Your task to perform on an android device: install app "Google Sheets" Image 0: 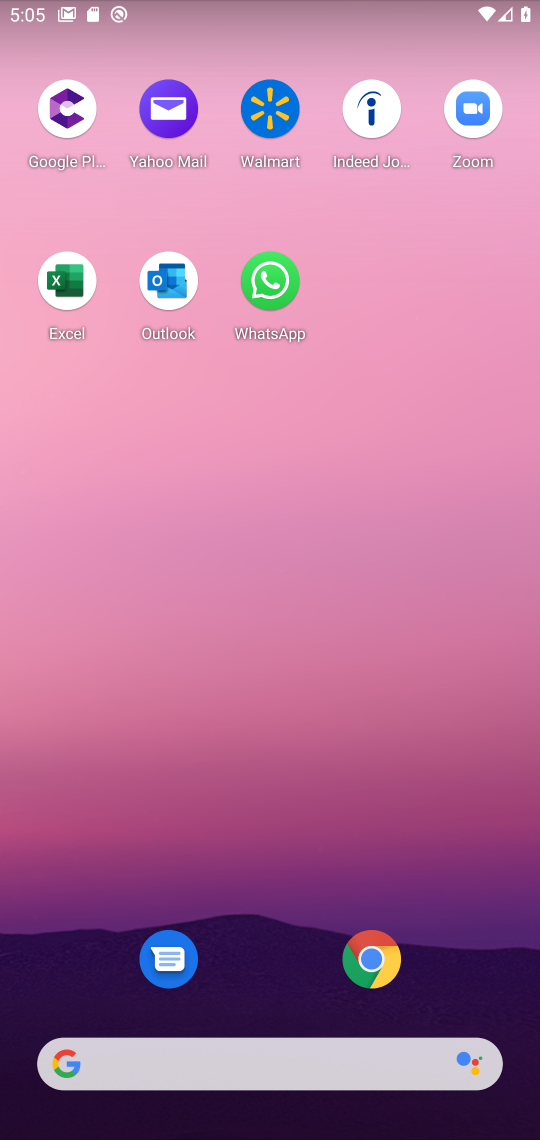
Step 0: drag from (274, 993) to (218, 330)
Your task to perform on an android device: install app "Google Sheets" Image 1: 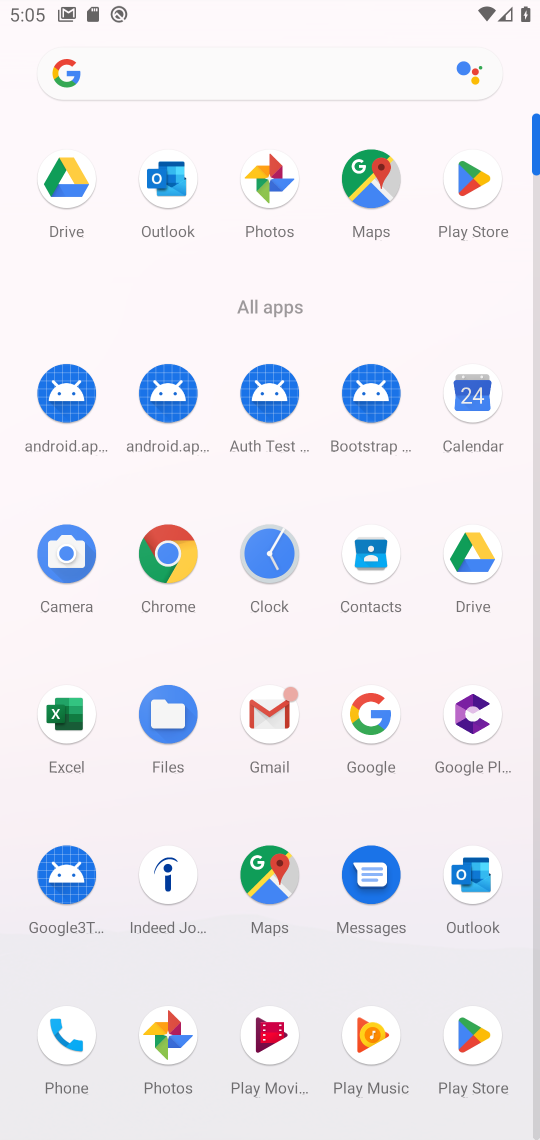
Step 1: click (462, 192)
Your task to perform on an android device: install app "Google Sheets" Image 2: 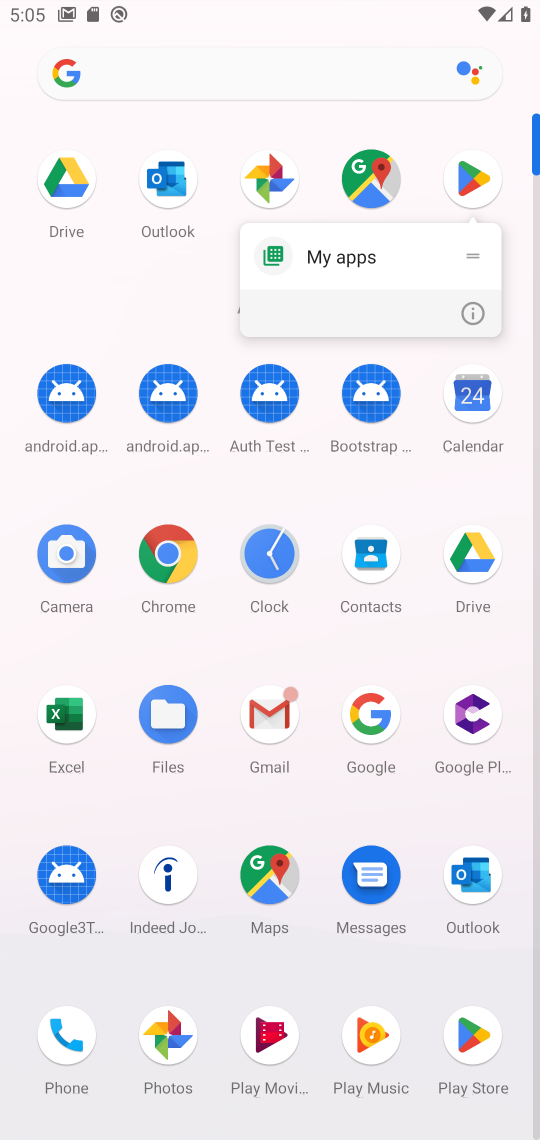
Step 2: click (457, 177)
Your task to perform on an android device: install app "Google Sheets" Image 3: 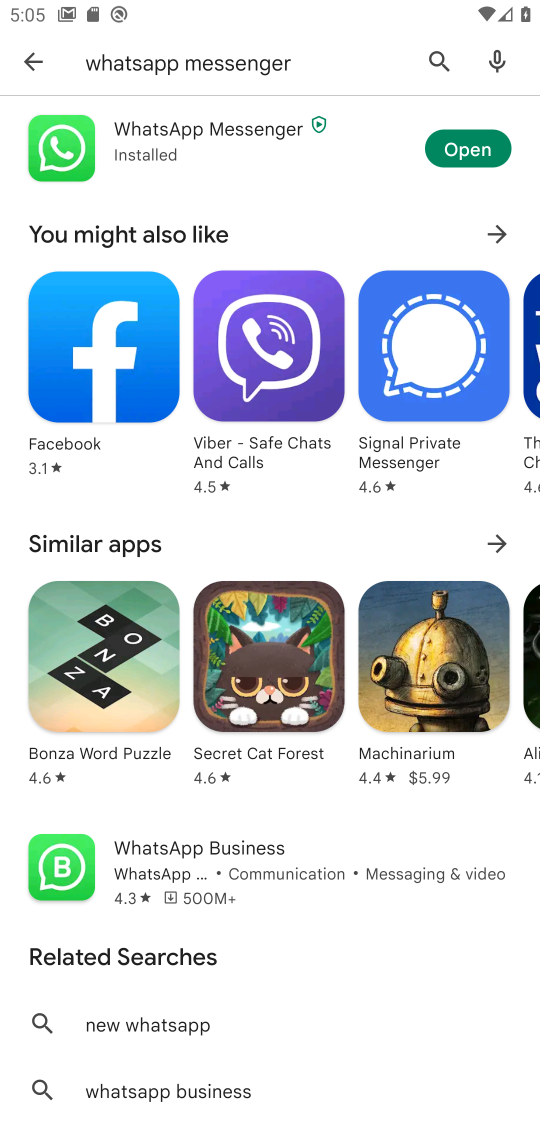
Step 3: click (424, 59)
Your task to perform on an android device: install app "Google Sheets" Image 4: 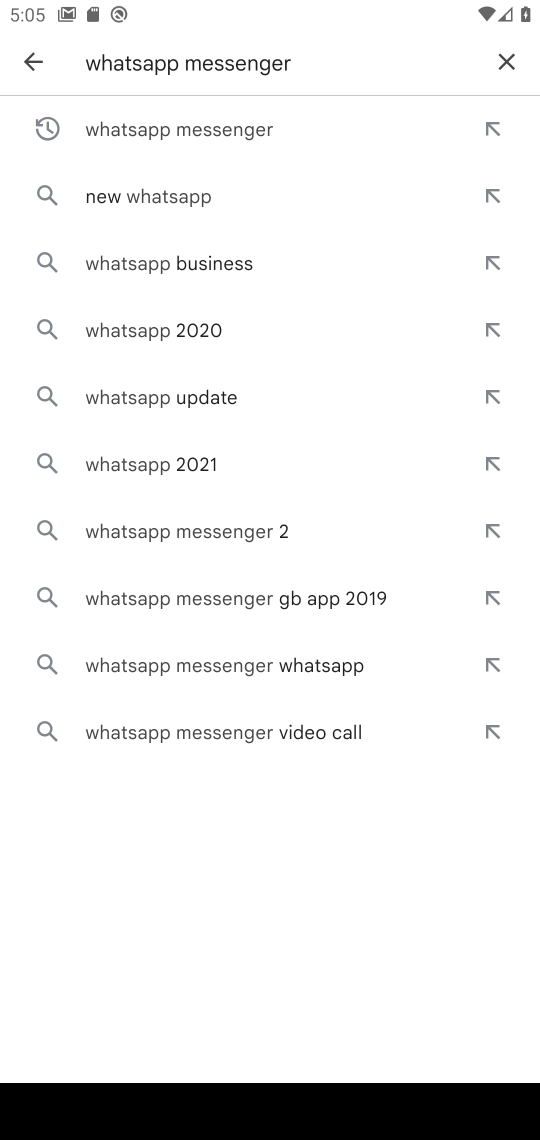
Step 4: click (503, 64)
Your task to perform on an android device: install app "Google Sheets" Image 5: 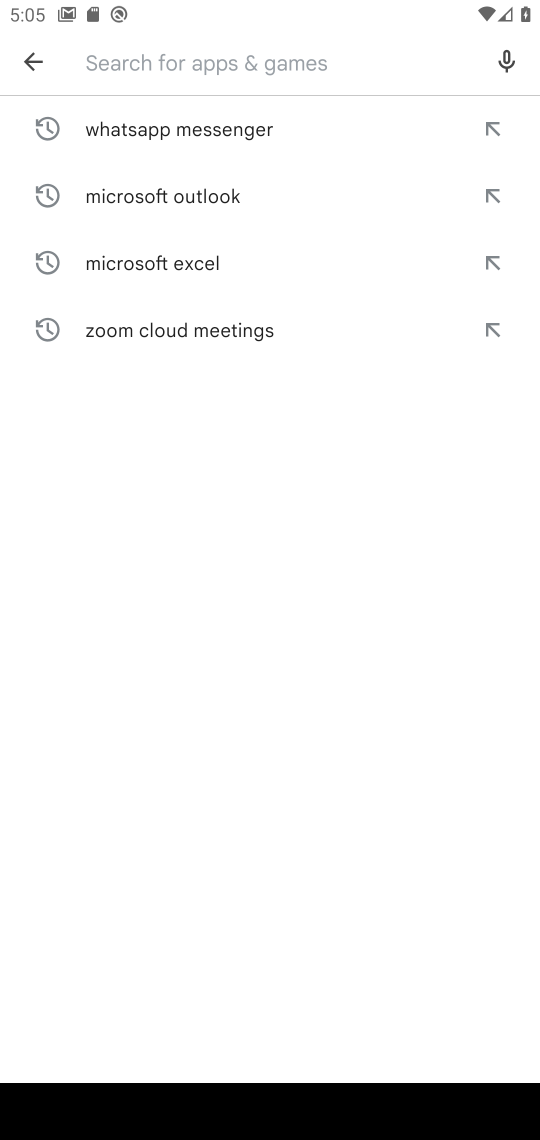
Step 5: type "Google Sheets"
Your task to perform on an android device: install app "Google Sheets" Image 6: 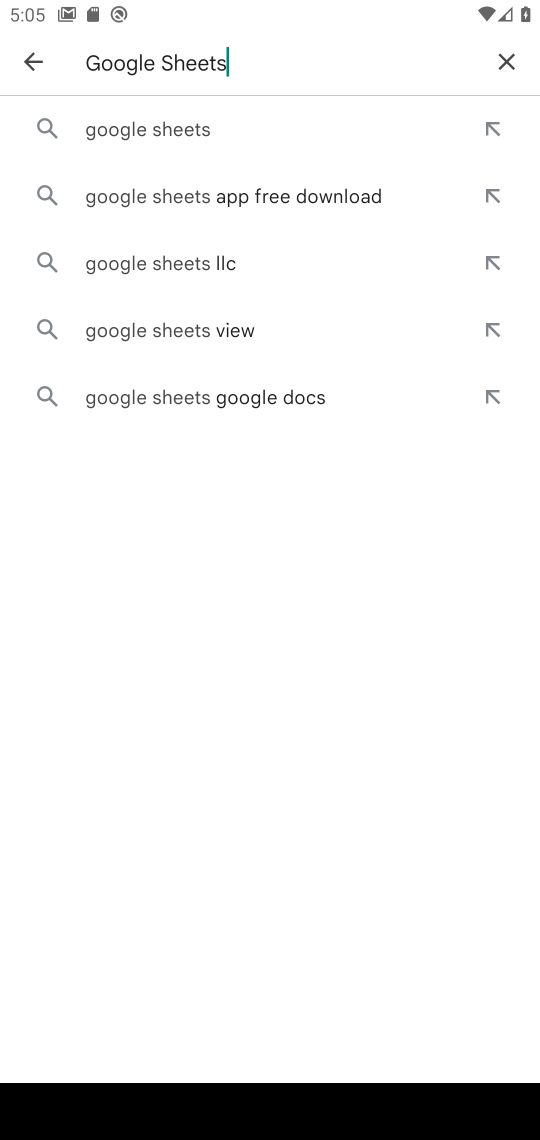
Step 6: click (187, 130)
Your task to perform on an android device: install app "Google Sheets" Image 7: 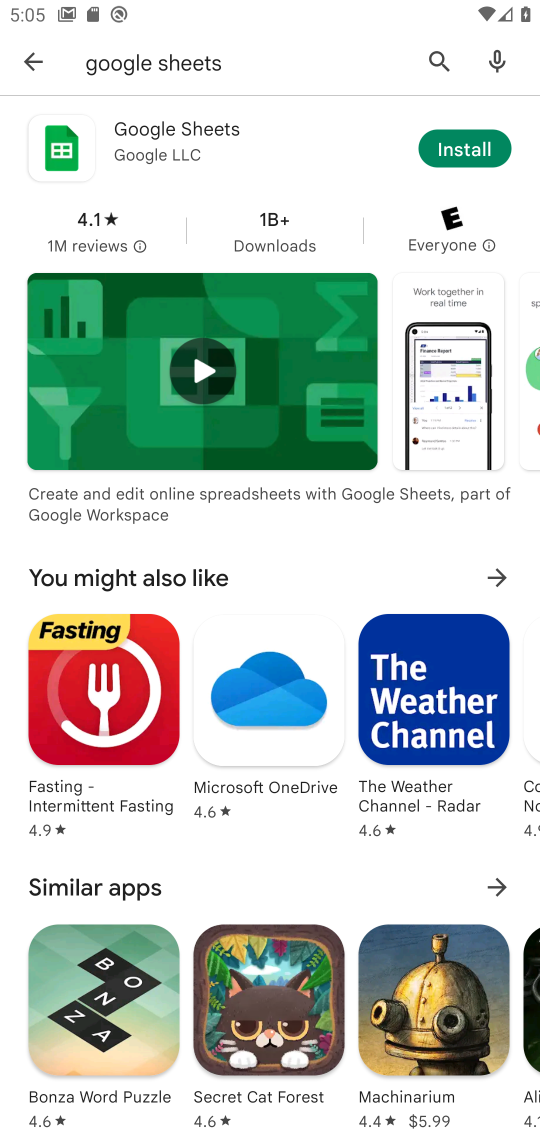
Step 7: click (473, 147)
Your task to perform on an android device: install app "Google Sheets" Image 8: 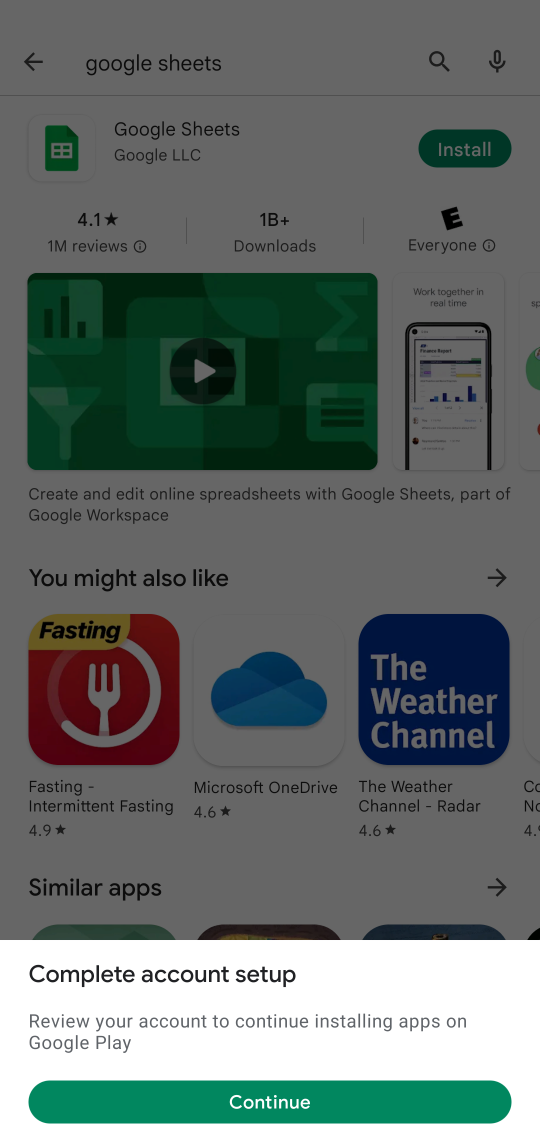
Step 8: click (266, 1097)
Your task to perform on an android device: install app "Google Sheets" Image 9: 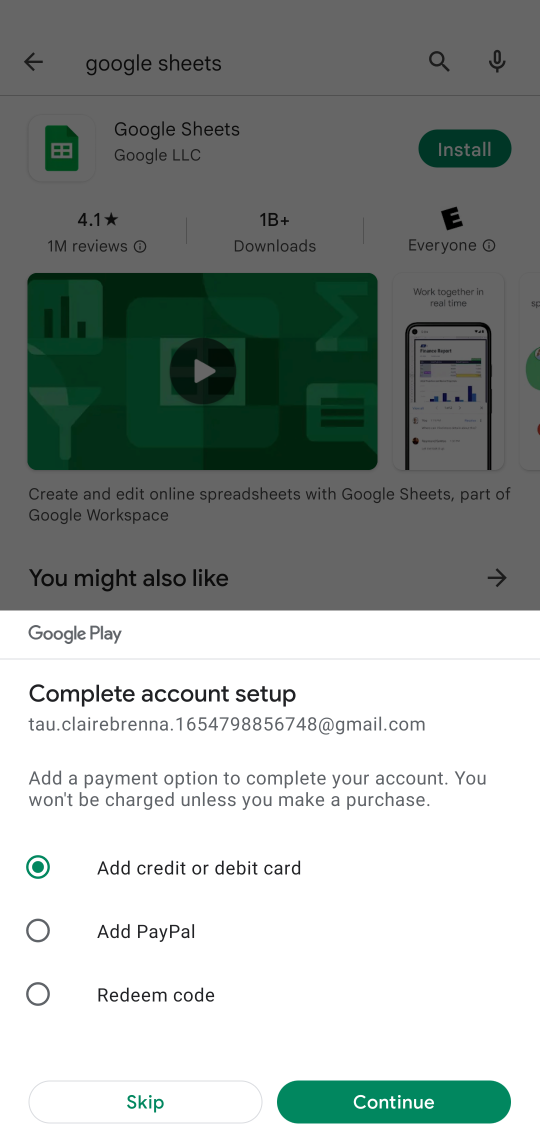
Step 9: click (138, 1094)
Your task to perform on an android device: install app "Google Sheets" Image 10: 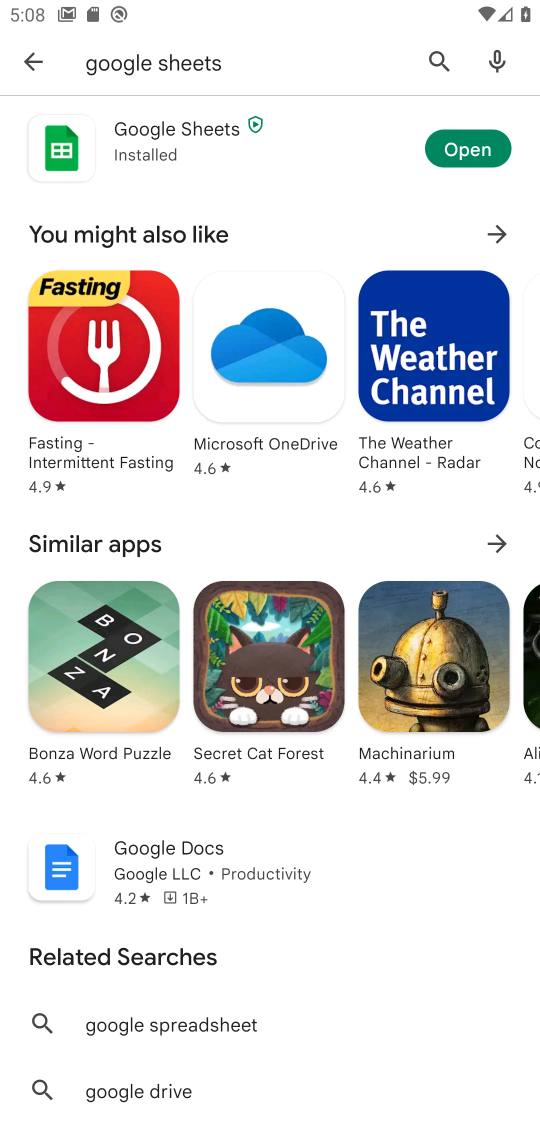
Step 10: click (489, 139)
Your task to perform on an android device: install app "Google Sheets" Image 11: 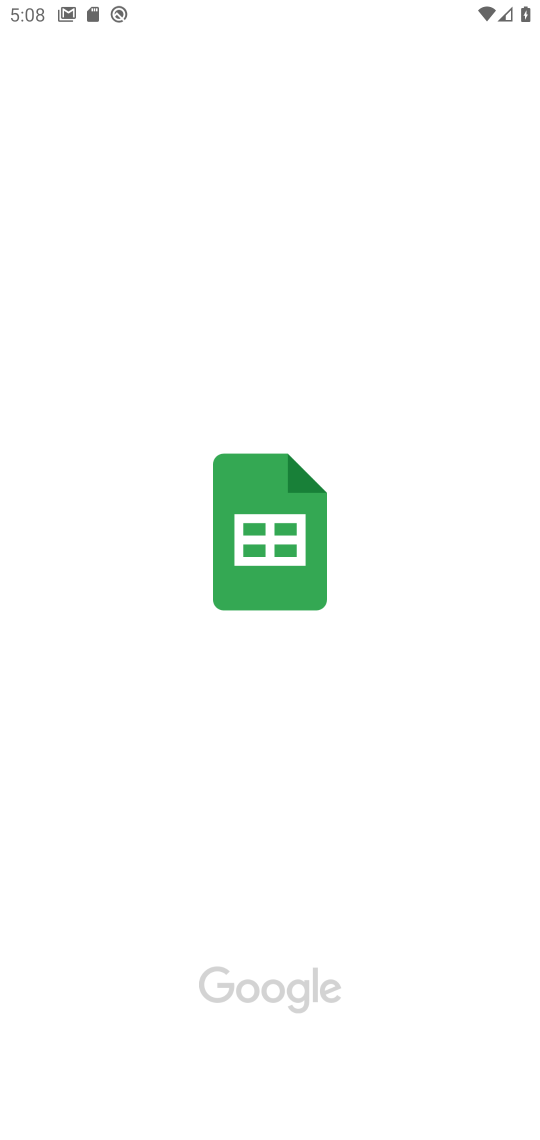
Step 11: task complete